Your task to perform on an android device: show emergency info Image 0: 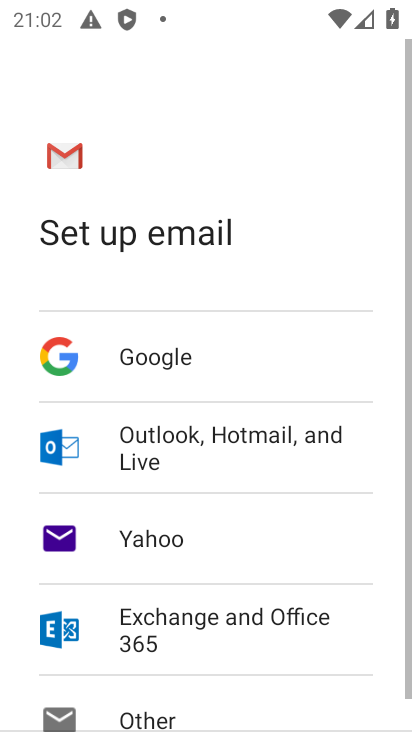
Step 0: press home button
Your task to perform on an android device: show emergency info Image 1: 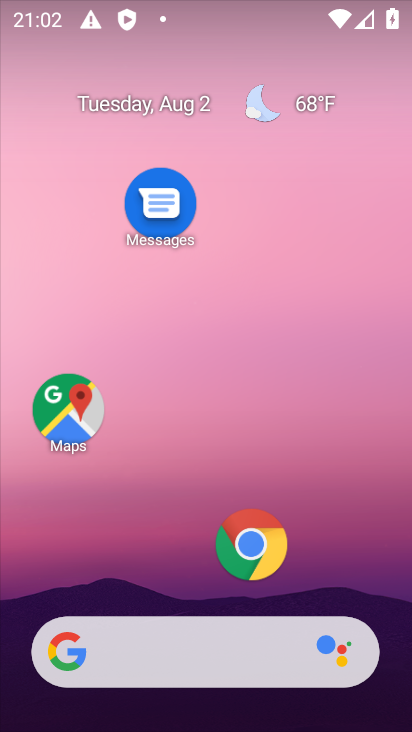
Step 1: drag from (187, 579) to (189, 167)
Your task to perform on an android device: show emergency info Image 2: 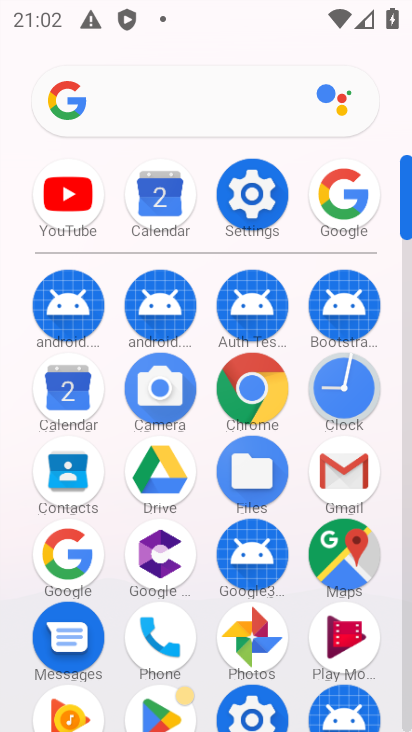
Step 2: click (248, 204)
Your task to perform on an android device: show emergency info Image 3: 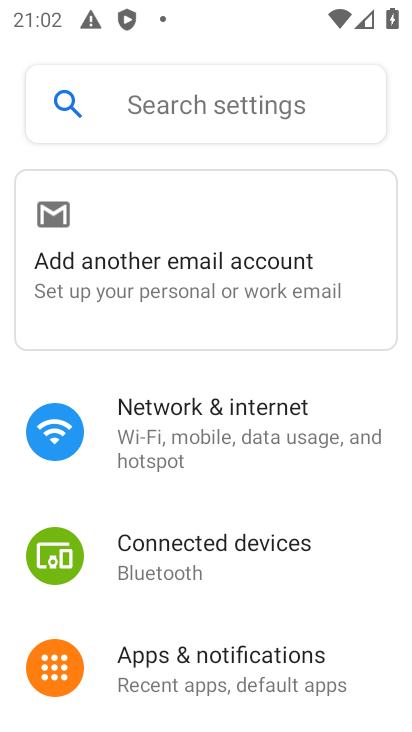
Step 3: drag from (205, 669) to (210, 108)
Your task to perform on an android device: show emergency info Image 4: 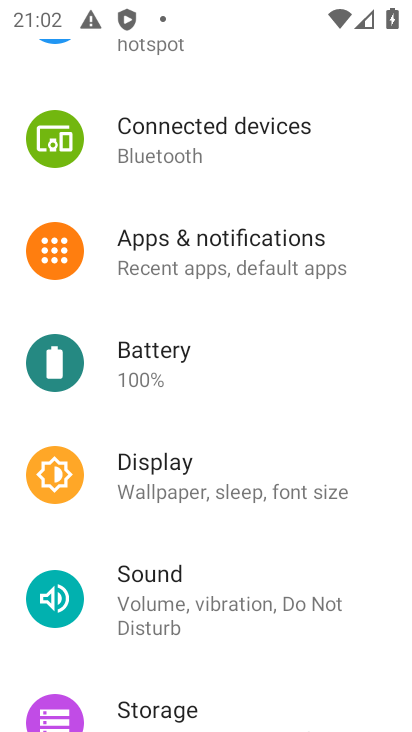
Step 4: drag from (214, 564) to (225, 158)
Your task to perform on an android device: show emergency info Image 5: 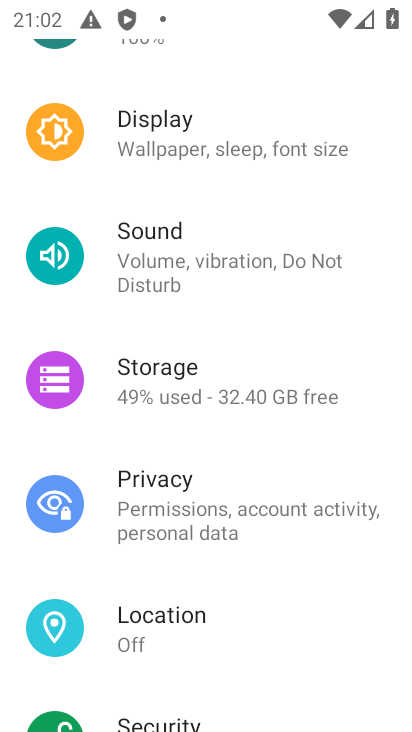
Step 5: drag from (230, 371) to (255, 156)
Your task to perform on an android device: show emergency info Image 6: 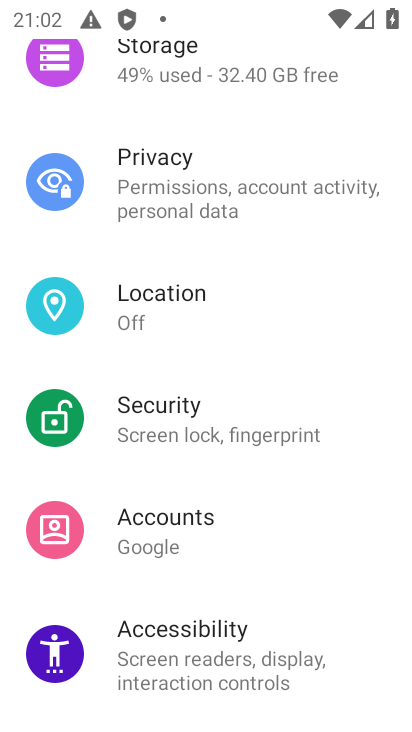
Step 6: drag from (189, 633) to (255, 252)
Your task to perform on an android device: show emergency info Image 7: 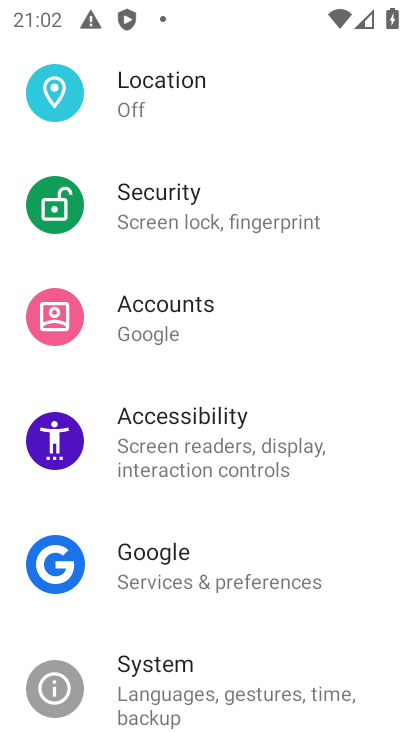
Step 7: drag from (197, 644) to (222, 202)
Your task to perform on an android device: show emergency info Image 8: 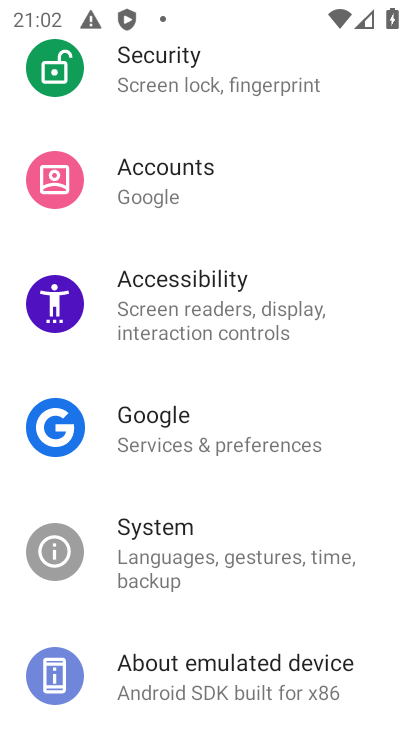
Step 8: drag from (160, 616) to (211, 247)
Your task to perform on an android device: show emergency info Image 9: 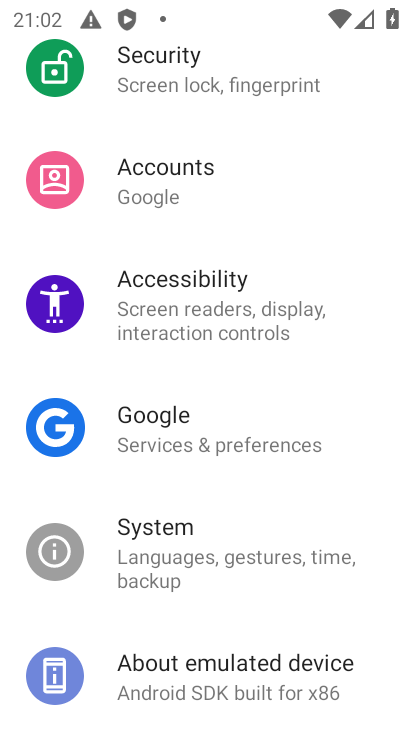
Step 9: click (128, 657)
Your task to perform on an android device: show emergency info Image 10: 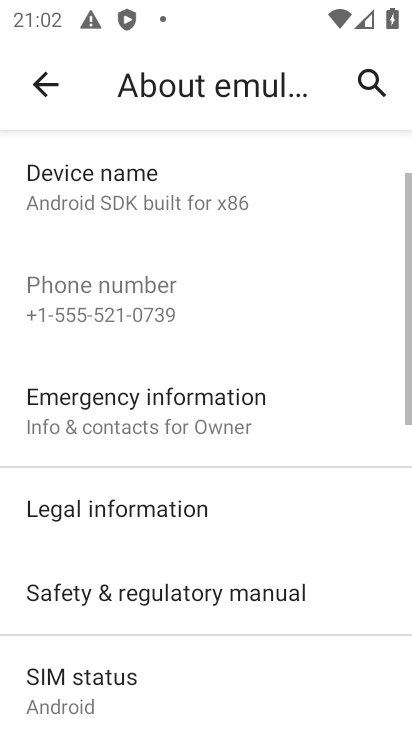
Step 10: click (173, 414)
Your task to perform on an android device: show emergency info Image 11: 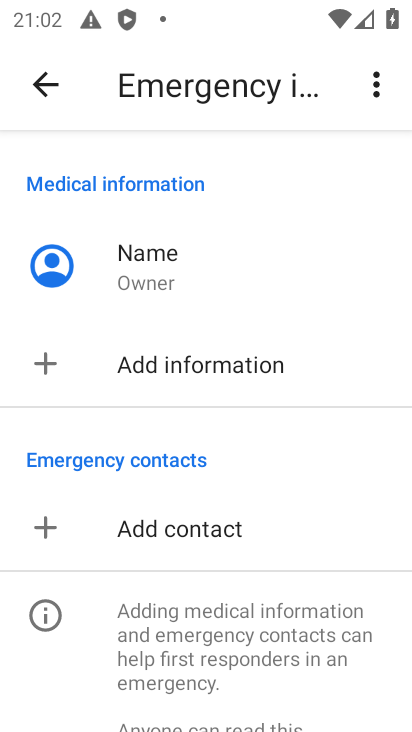
Step 11: task complete